Your task to perform on an android device: Go to notification settings Image 0: 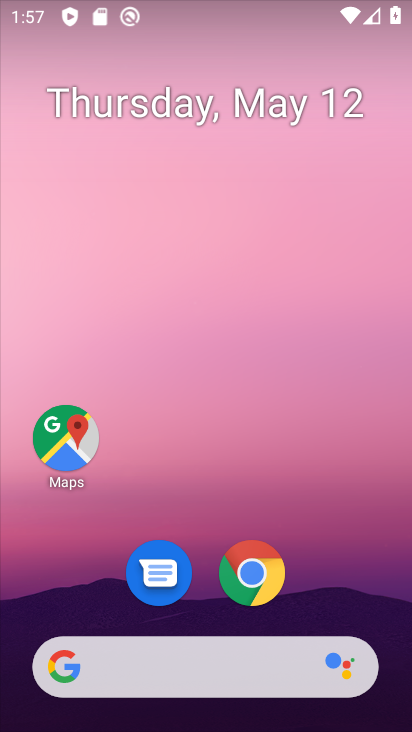
Step 0: drag from (204, 594) to (211, 352)
Your task to perform on an android device: Go to notification settings Image 1: 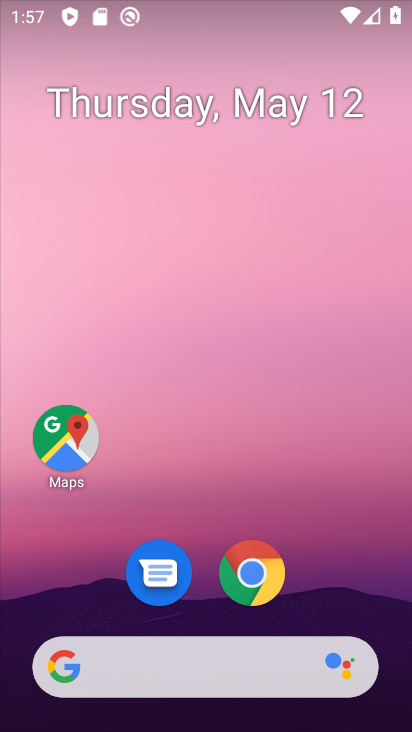
Step 1: drag from (148, 606) to (243, 327)
Your task to perform on an android device: Go to notification settings Image 2: 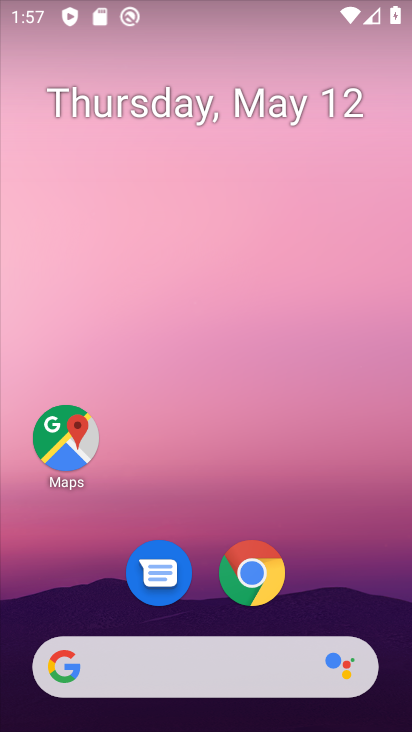
Step 2: drag from (192, 595) to (258, 148)
Your task to perform on an android device: Go to notification settings Image 3: 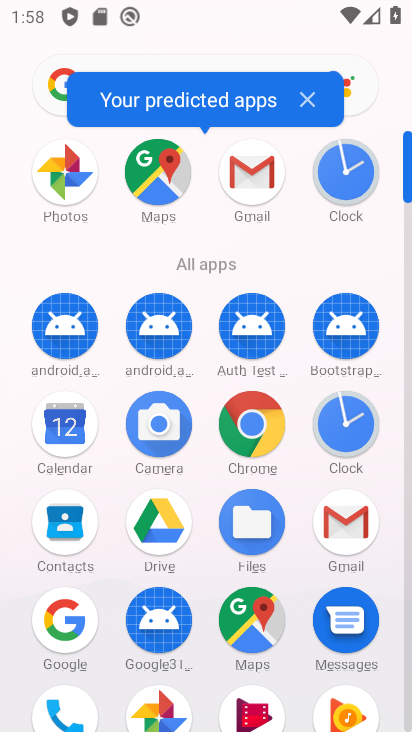
Step 3: drag from (218, 654) to (276, 229)
Your task to perform on an android device: Go to notification settings Image 4: 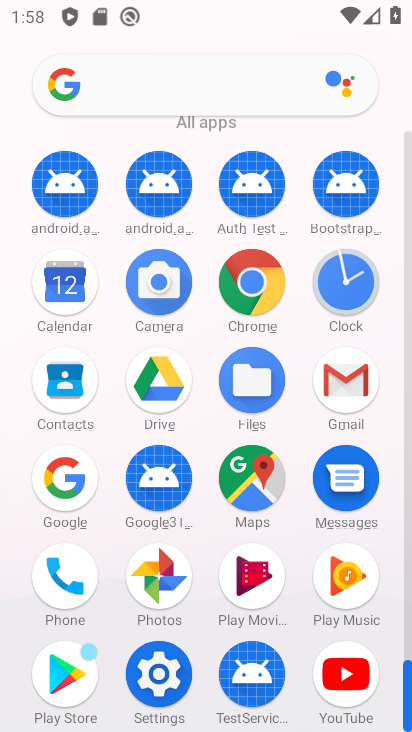
Step 4: click (157, 691)
Your task to perform on an android device: Go to notification settings Image 5: 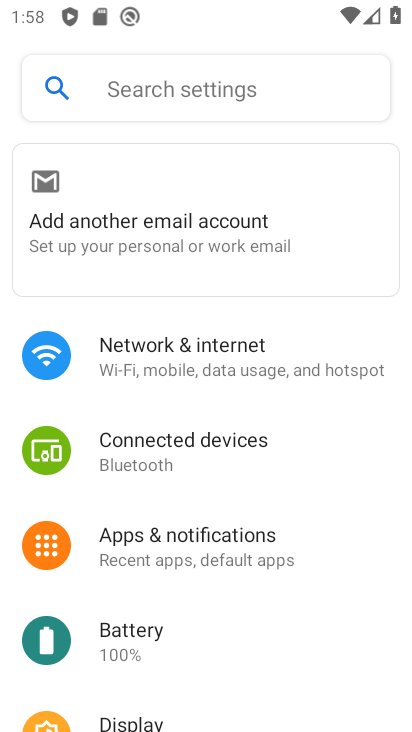
Step 5: click (137, 557)
Your task to perform on an android device: Go to notification settings Image 6: 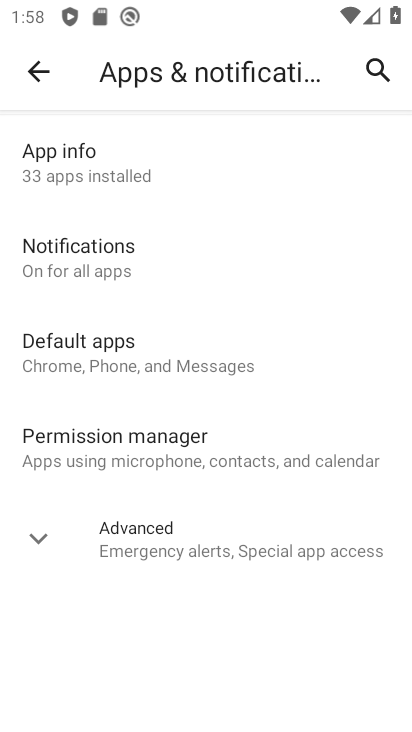
Step 6: click (109, 519)
Your task to perform on an android device: Go to notification settings Image 7: 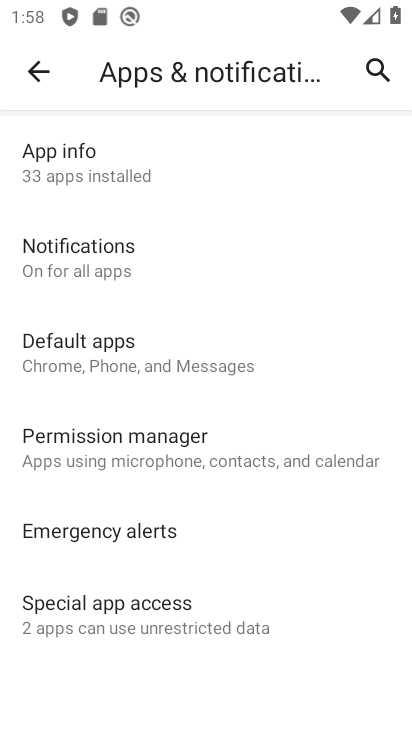
Step 7: drag from (216, 615) to (243, 452)
Your task to perform on an android device: Go to notification settings Image 8: 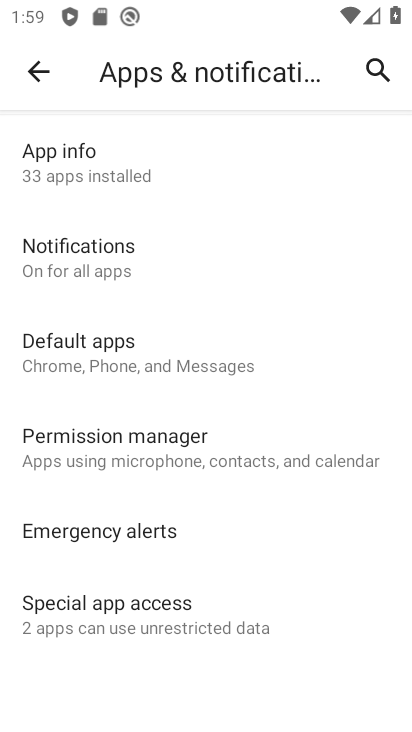
Step 8: click (94, 237)
Your task to perform on an android device: Go to notification settings Image 9: 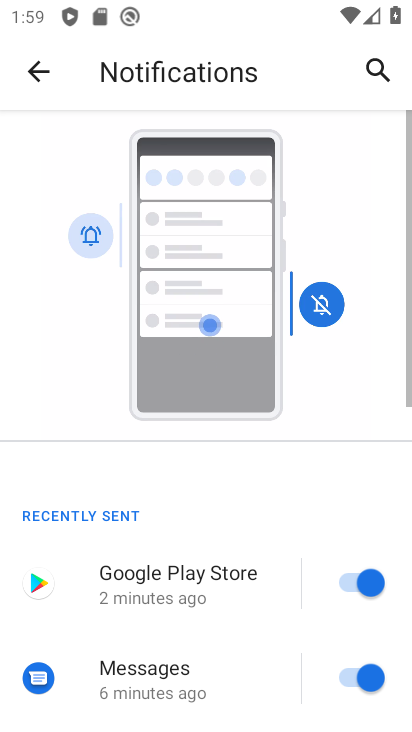
Step 9: task complete